Your task to perform on an android device: open app "AliExpress" (install if not already installed) Image 0: 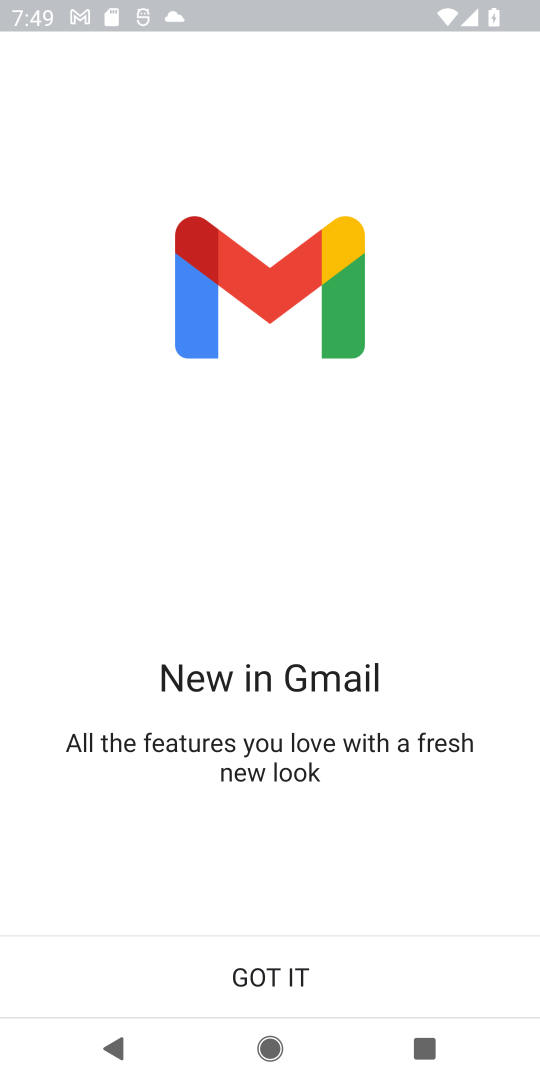
Step 0: press home button
Your task to perform on an android device: open app "AliExpress" (install if not already installed) Image 1: 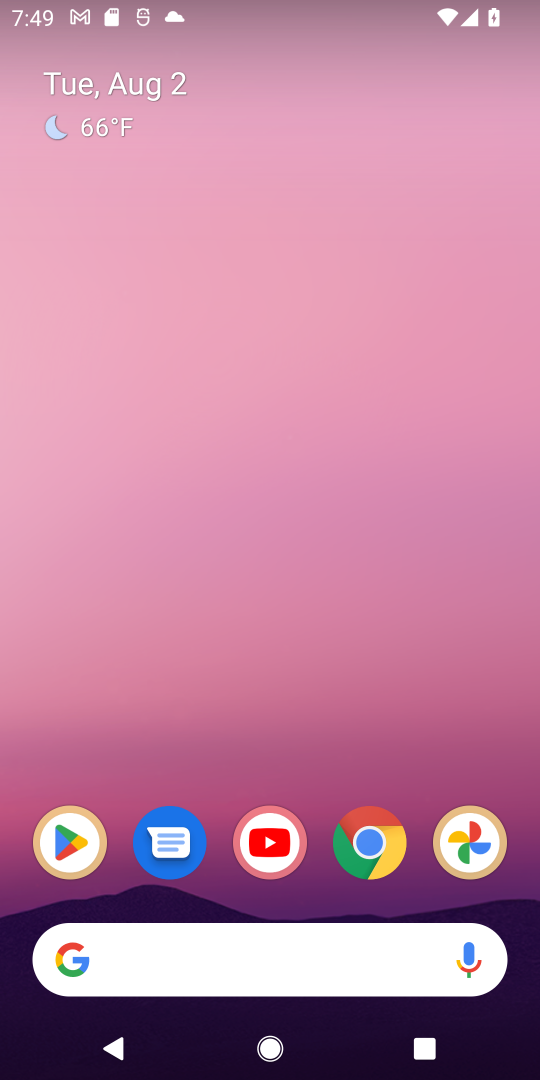
Step 1: click (77, 862)
Your task to perform on an android device: open app "AliExpress" (install if not already installed) Image 2: 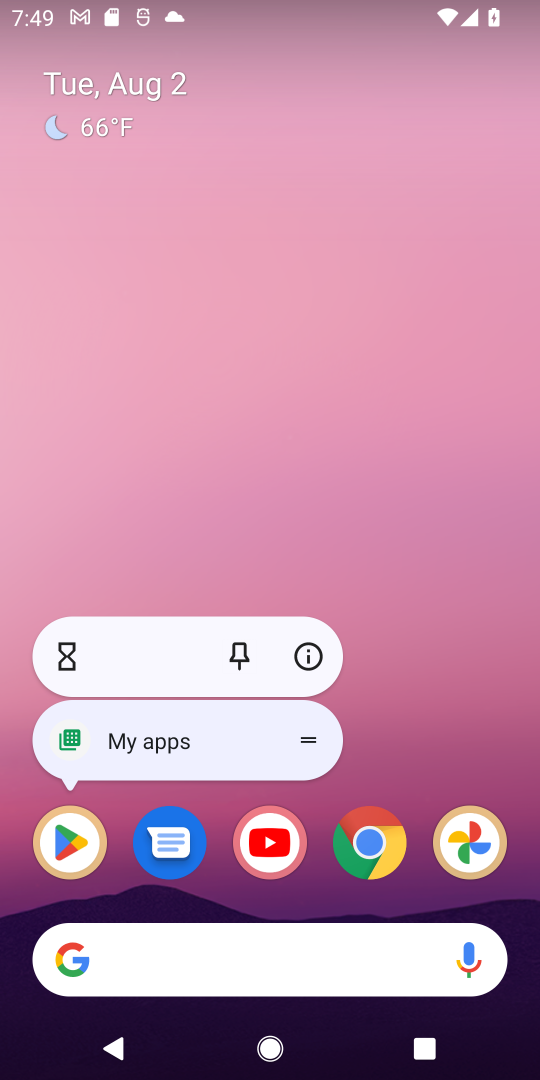
Step 2: click (88, 853)
Your task to perform on an android device: open app "AliExpress" (install if not already installed) Image 3: 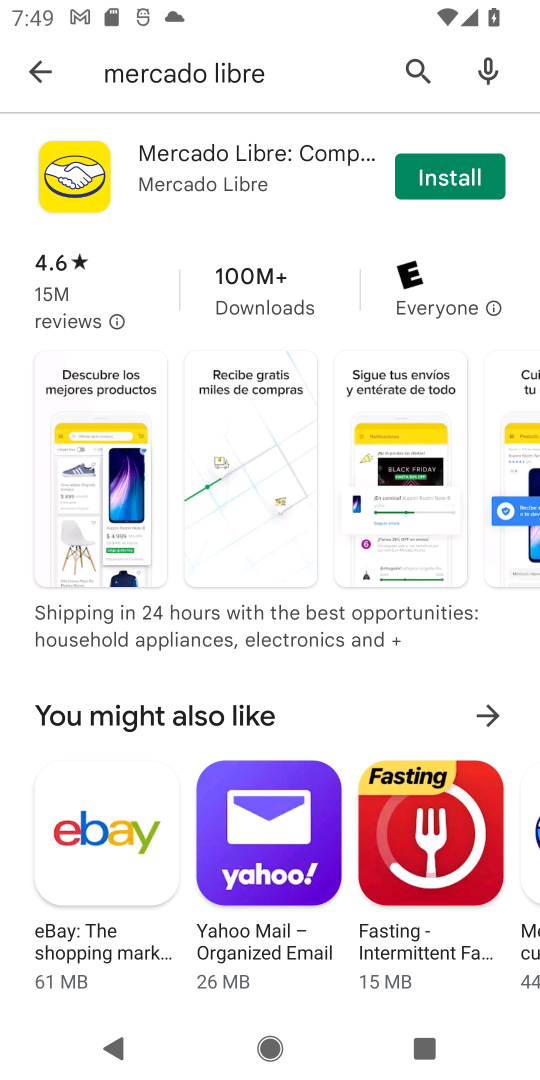
Step 3: click (245, 98)
Your task to perform on an android device: open app "AliExpress" (install if not already installed) Image 4: 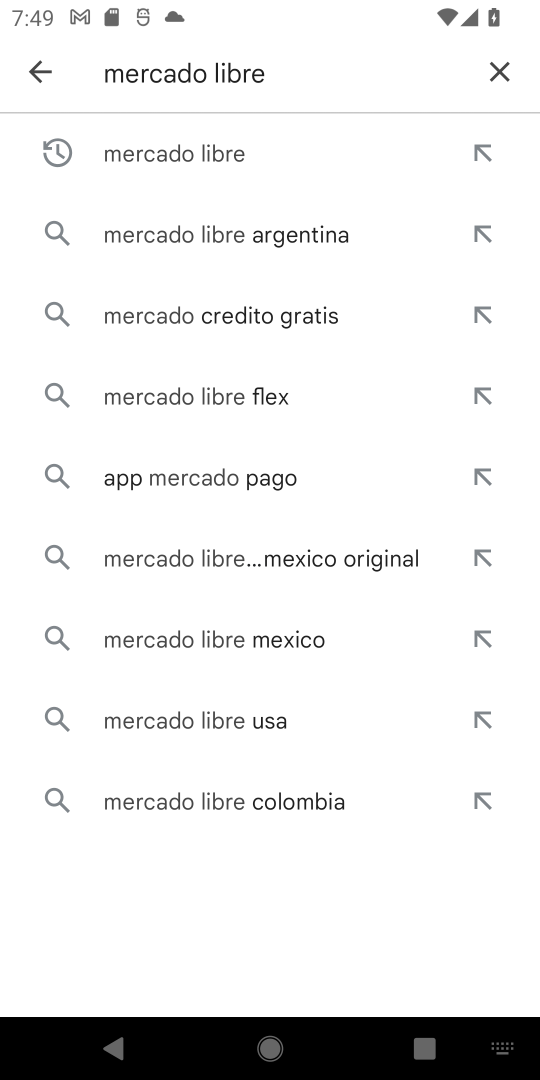
Step 4: click (494, 65)
Your task to perform on an android device: open app "AliExpress" (install if not already installed) Image 5: 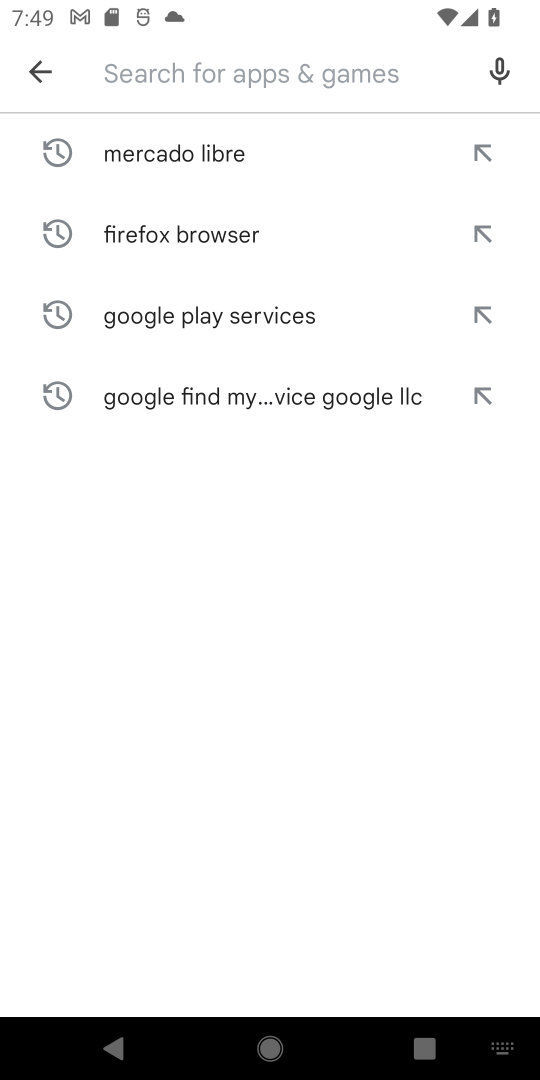
Step 5: type "Ali Express"
Your task to perform on an android device: open app "AliExpress" (install if not already installed) Image 6: 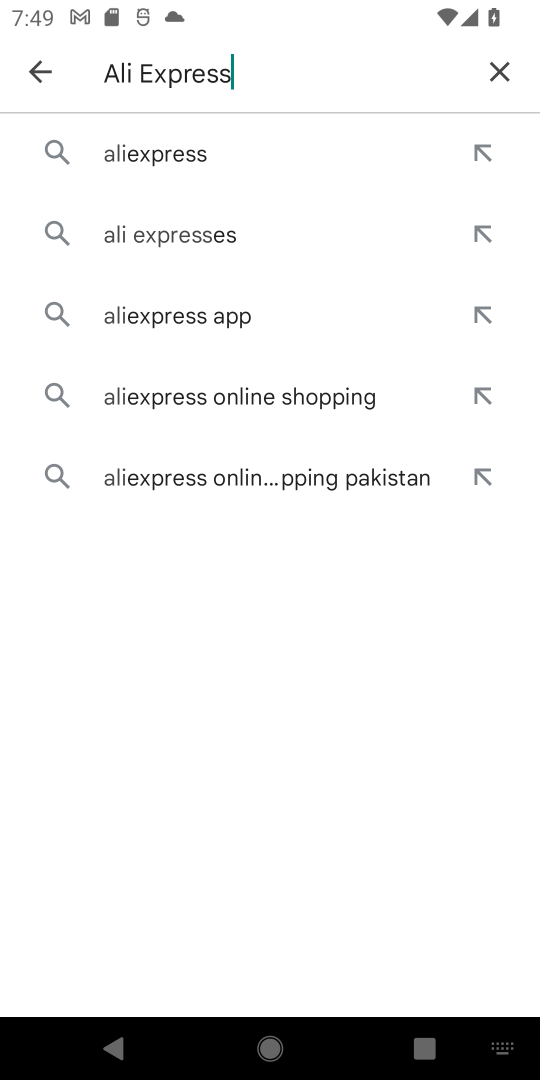
Step 6: click (224, 151)
Your task to perform on an android device: open app "AliExpress" (install if not already installed) Image 7: 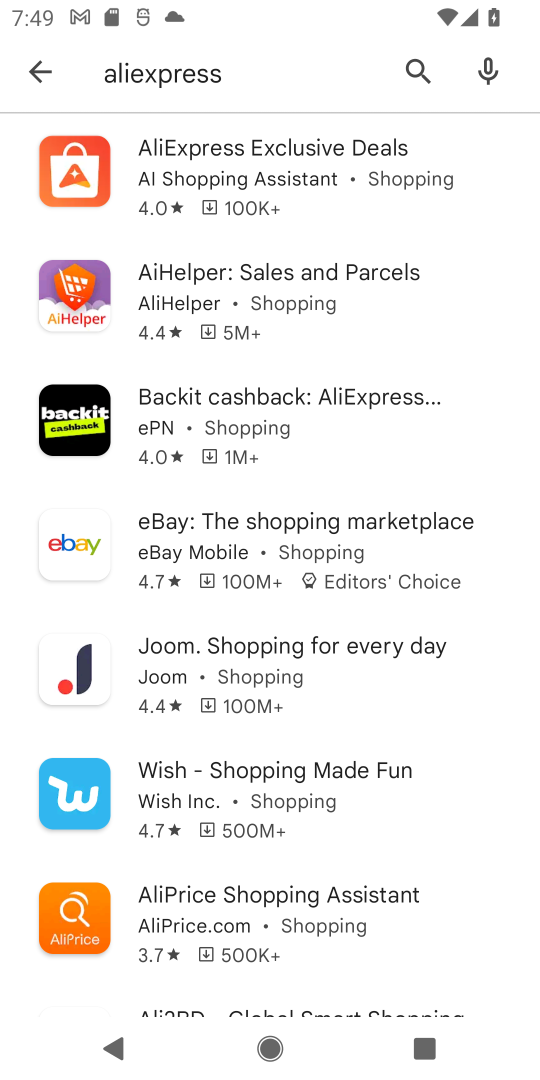
Step 7: click (244, 189)
Your task to perform on an android device: open app "AliExpress" (install if not already installed) Image 8: 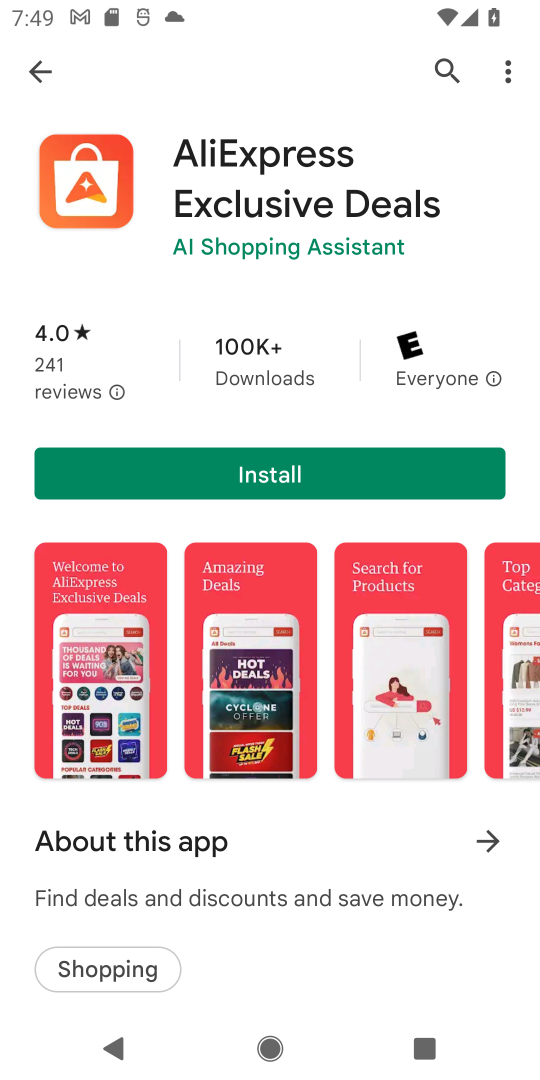
Step 8: click (281, 469)
Your task to perform on an android device: open app "AliExpress" (install if not already installed) Image 9: 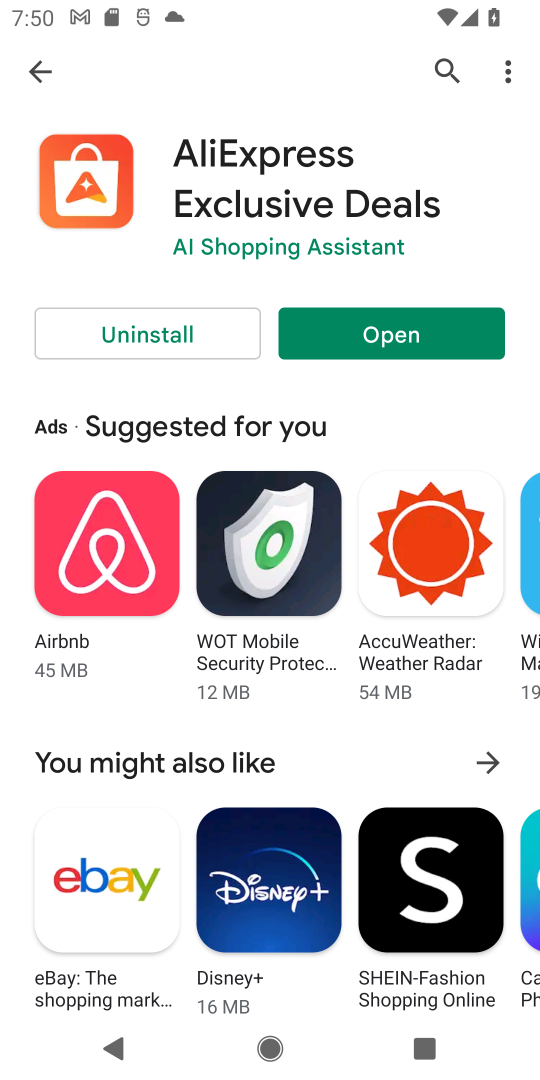
Step 9: click (418, 333)
Your task to perform on an android device: open app "AliExpress" (install if not already installed) Image 10: 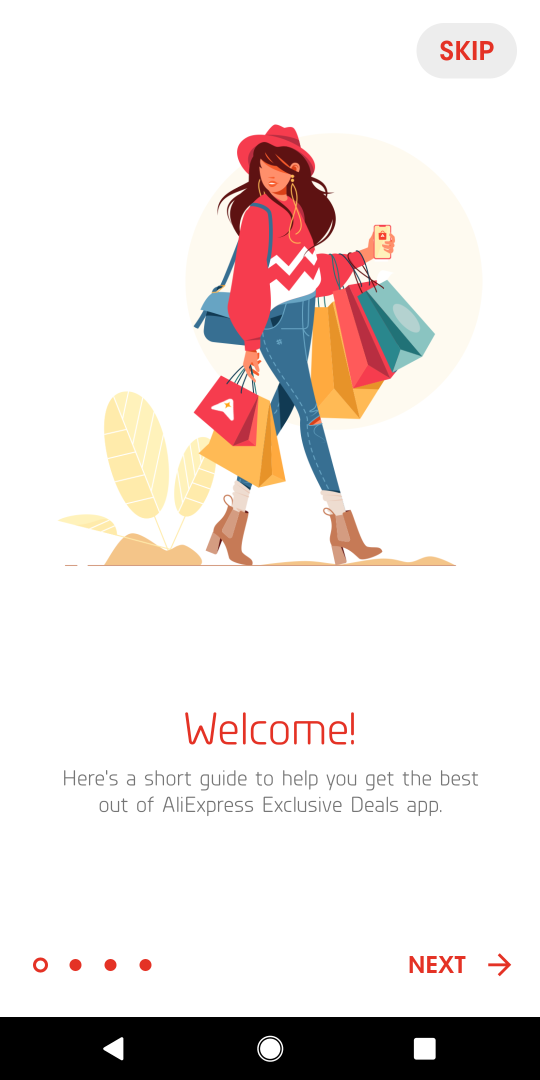
Step 10: click (467, 36)
Your task to perform on an android device: open app "AliExpress" (install if not already installed) Image 11: 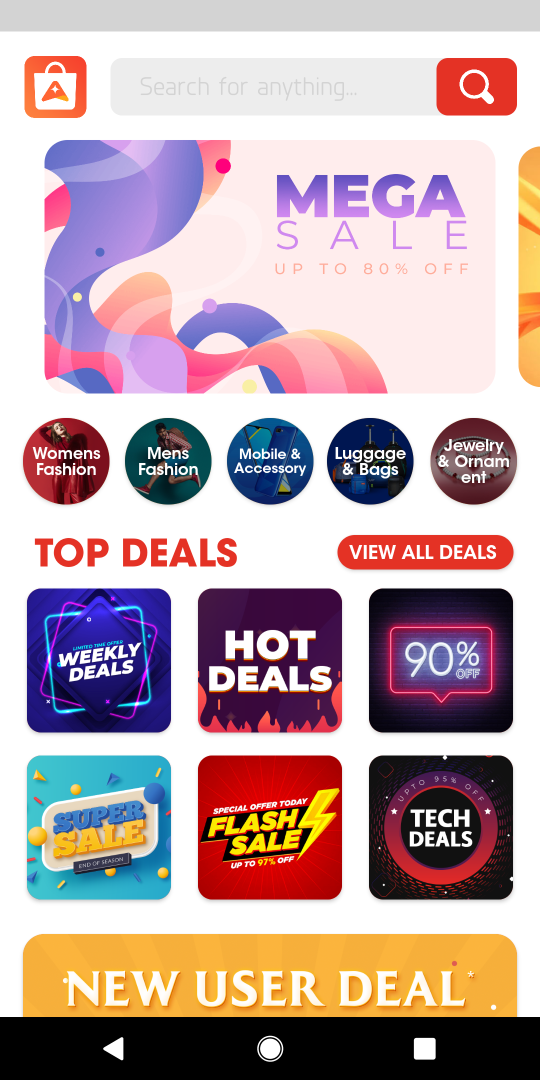
Step 11: task complete